Your task to perform on an android device: turn pop-ups off in chrome Image 0: 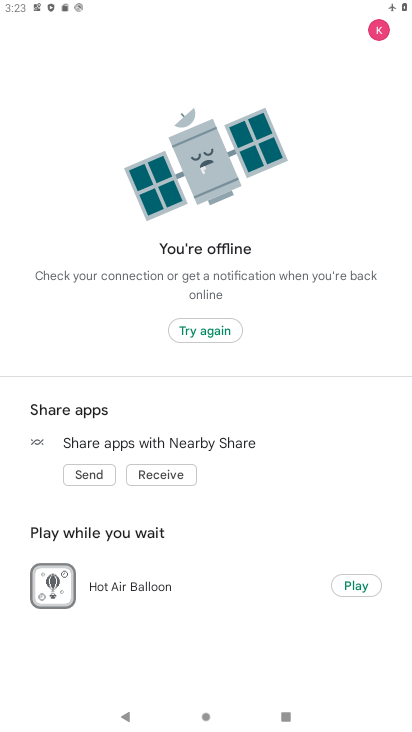
Step 0: click (367, 592)
Your task to perform on an android device: turn pop-ups off in chrome Image 1: 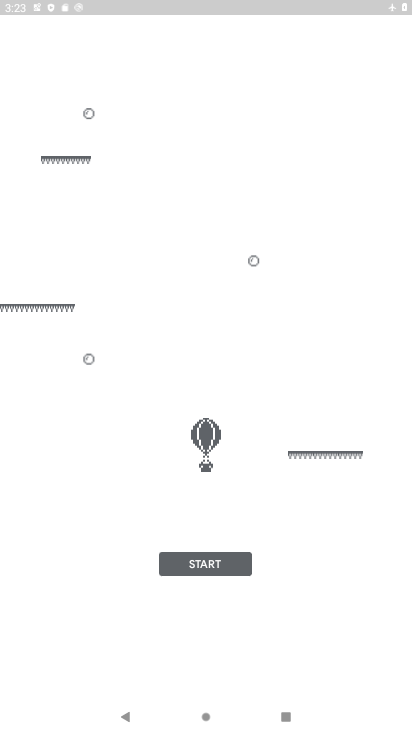
Step 1: press back button
Your task to perform on an android device: turn pop-ups off in chrome Image 2: 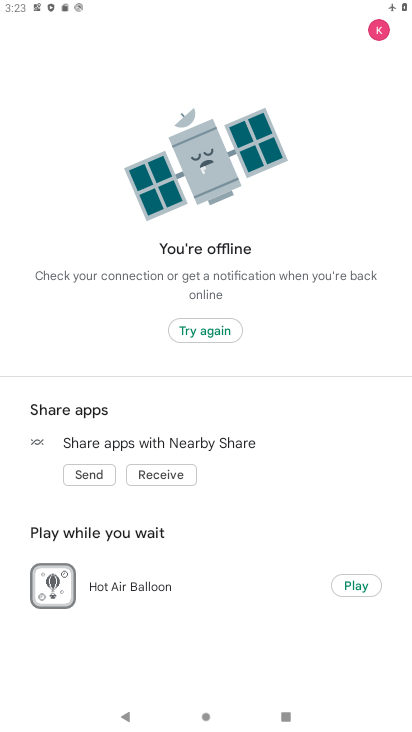
Step 2: press back button
Your task to perform on an android device: turn pop-ups off in chrome Image 3: 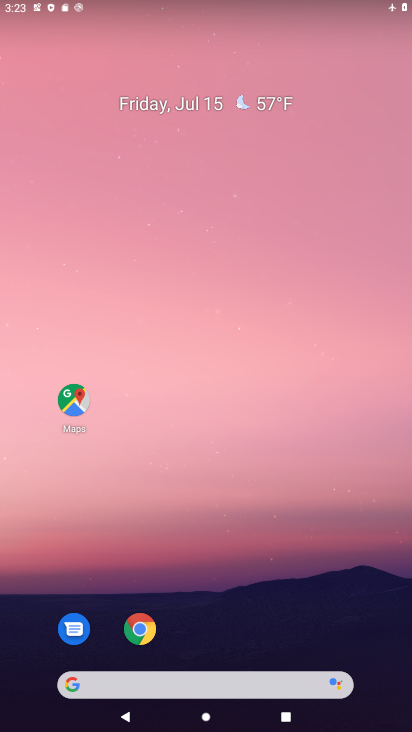
Step 3: drag from (219, 646) to (194, 165)
Your task to perform on an android device: turn pop-ups off in chrome Image 4: 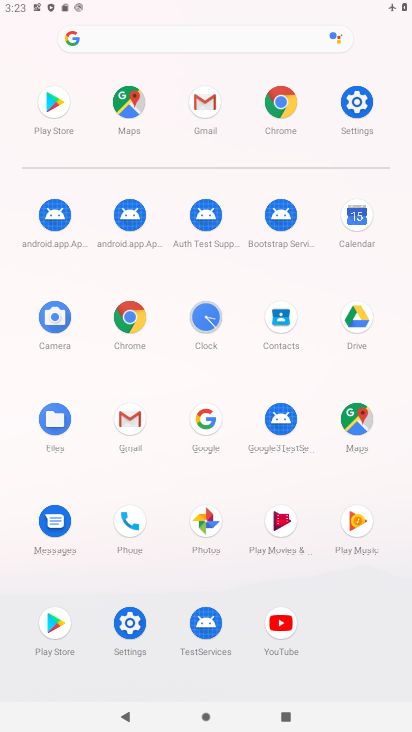
Step 4: click (281, 106)
Your task to perform on an android device: turn pop-ups off in chrome Image 5: 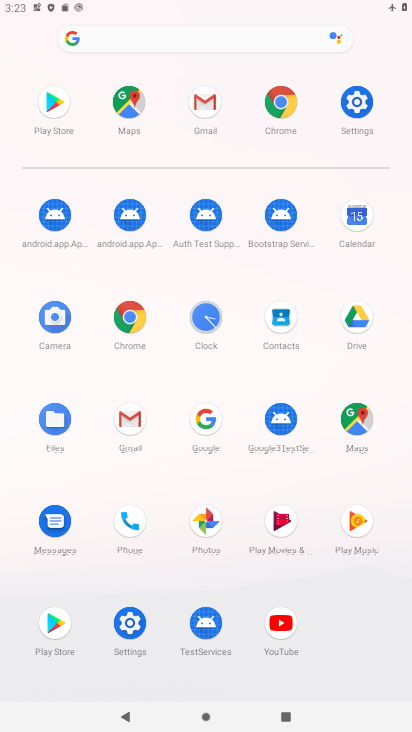
Step 5: click (284, 105)
Your task to perform on an android device: turn pop-ups off in chrome Image 6: 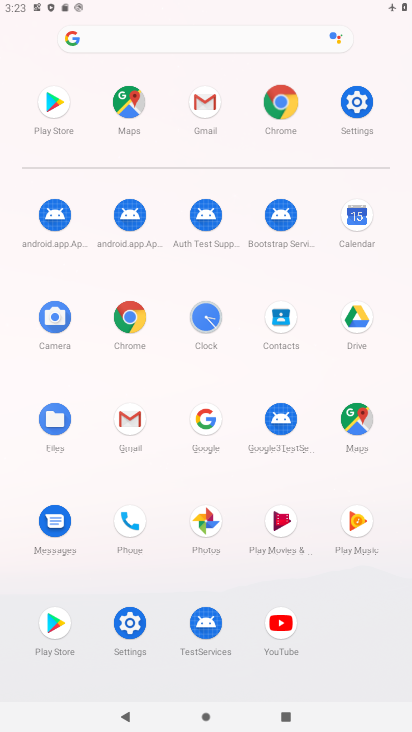
Step 6: click (285, 106)
Your task to perform on an android device: turn pop-ups off in chrome Image 7: 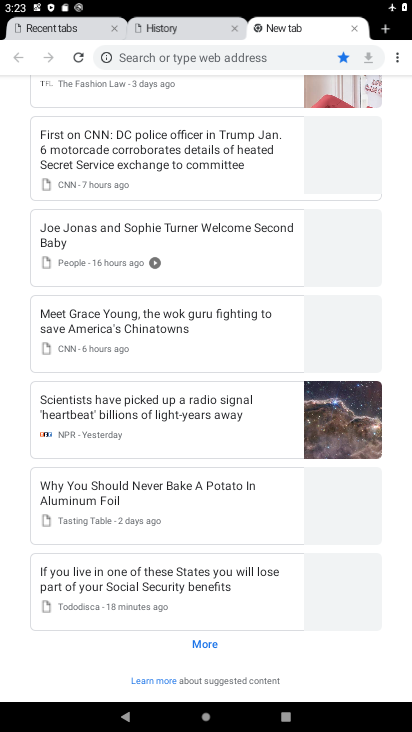
Step 7: drag from (384, 58) to (283, 324)
Your task to perform on an android device: turn pop-ups off in chrome Image 8: 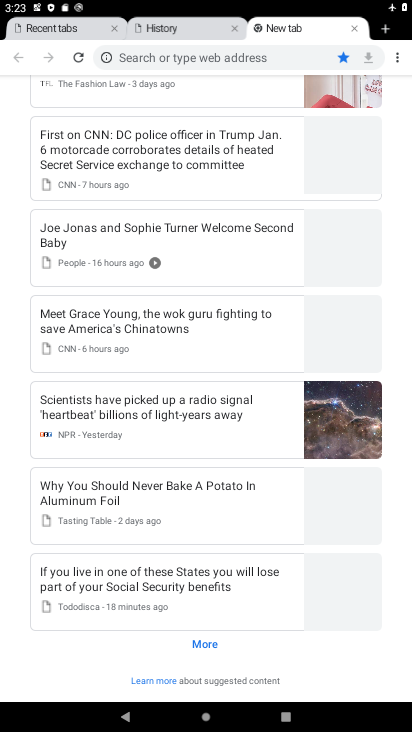
Step 8: drag from (398, 60) to (275, 275)
Your task to perform on an android device: turn pop-ups off in chrome Image 9: 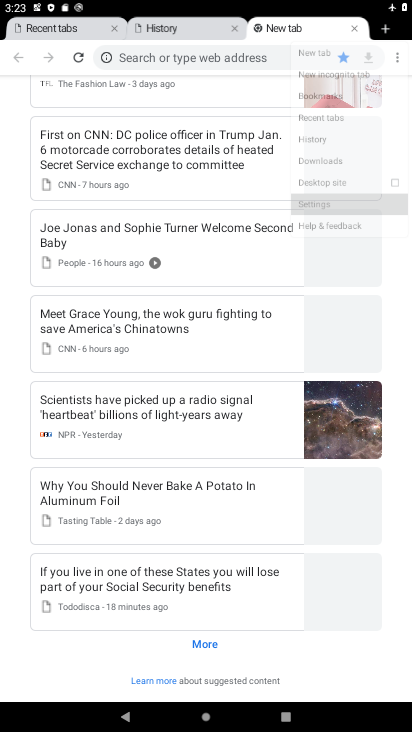
Step 9: click (278, 272)
Your task to perform on an android device: turn pop-ups off in chrome Image 10: 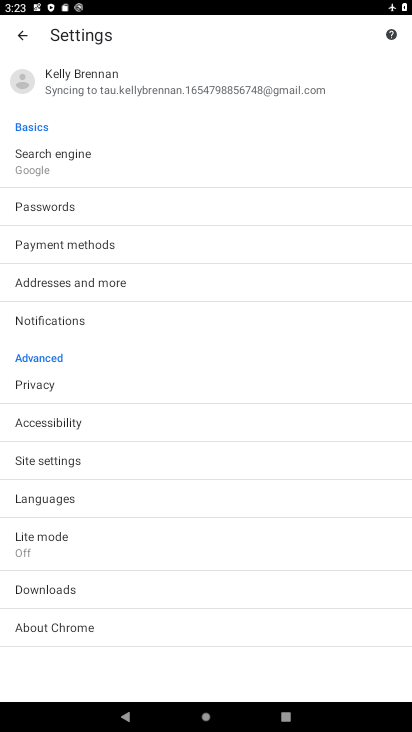
Step 10: click (40, 458)
Your task to perform on an android device: turn pop-ups off in chrome Image 11: 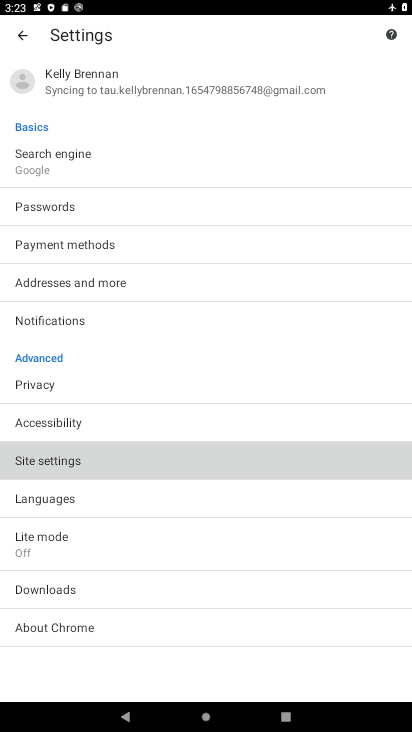
Step 11: click (40, 458)
Your task to perform on an android device: turn pop-ups off in chrome Image 12: 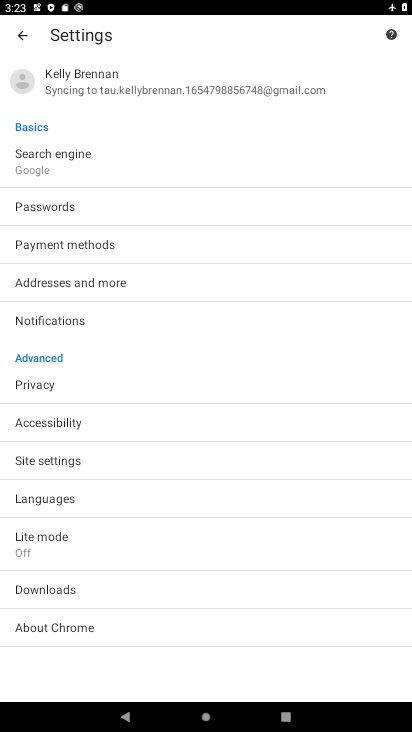
Step 12: click (40, 458)
Your task to perform on an android device: turn pop-ups off in chrome Image 13: 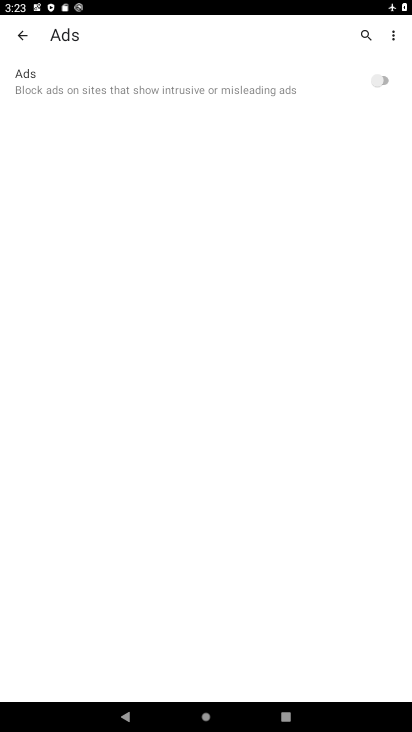
Step 13: click (19, 37)
Your task to perform on an android device: turn pop-ups off in chrome Image 14: 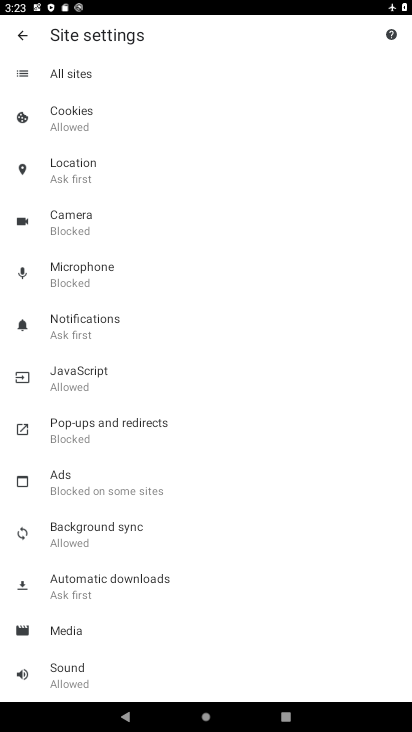
Step 14: click (85, 426)
Your task to perform on an android device: turn pop-ups off in chrome Image 15: 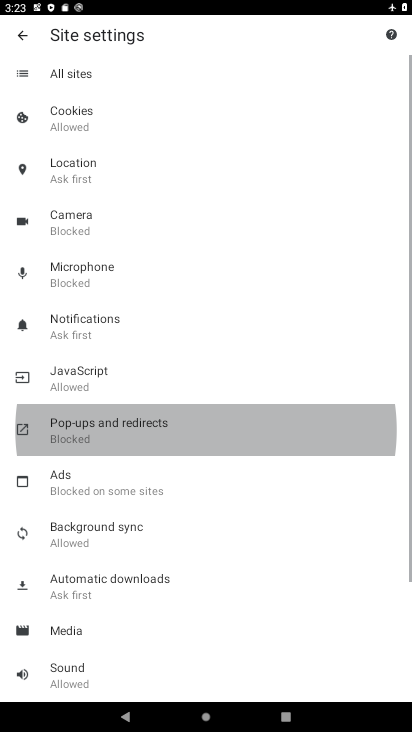
Step 15: click (85, 426)
Your task to perform on an android device: turn pop-ups off in chrome Image 16: 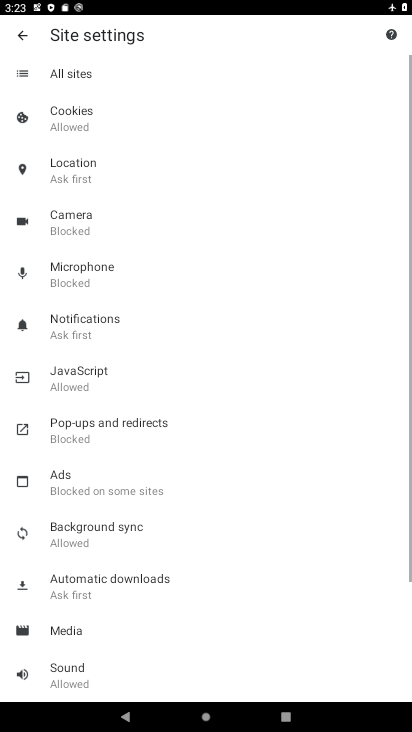
Step 16: click (88, 429)
Your task to perform on an android device: turn pop-ups off in chrome Image 17: 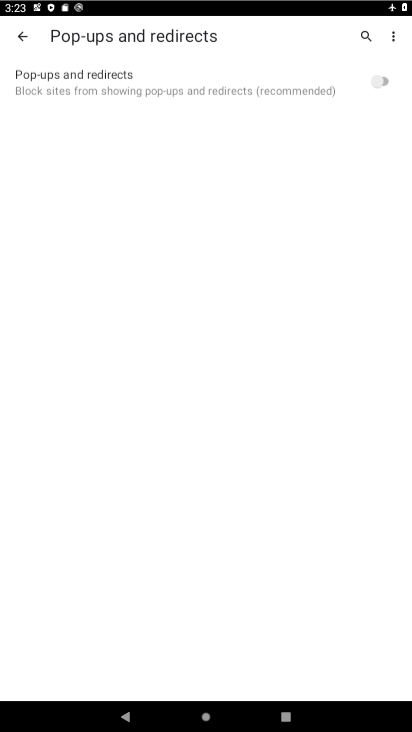
Step 17: click (90, 430)
Your task to perform on an android device: turn pop-ups off in chrome Image 18: 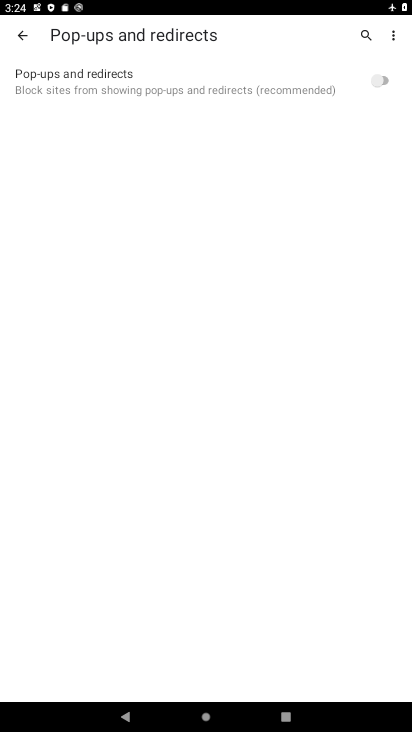
Step 18: task complete